Your task to perform on an android device: toggle location history Image 0: 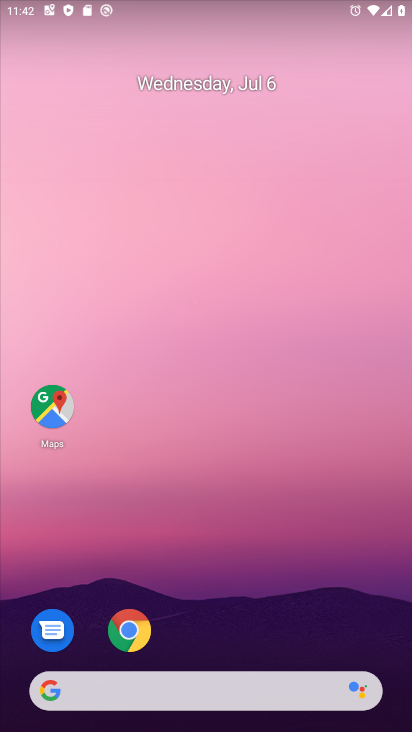
Step 0: drag from (251, 631) to (249, 83)
Your task to perform on an android device: toggle location history Image 1: 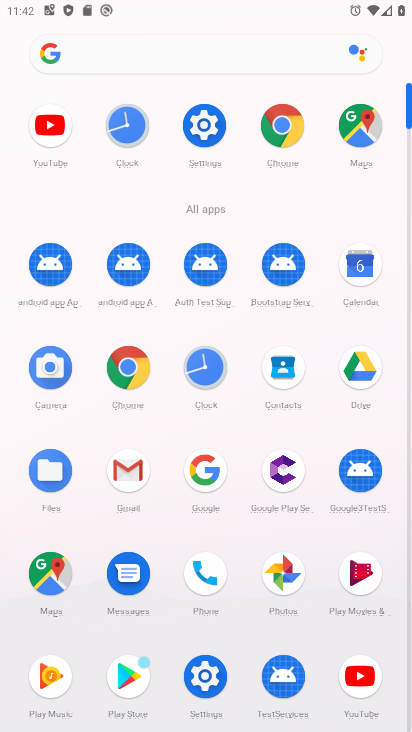
Step 1: click (51, 584)
Your task to perform on an android device: toggle location history Image 2: 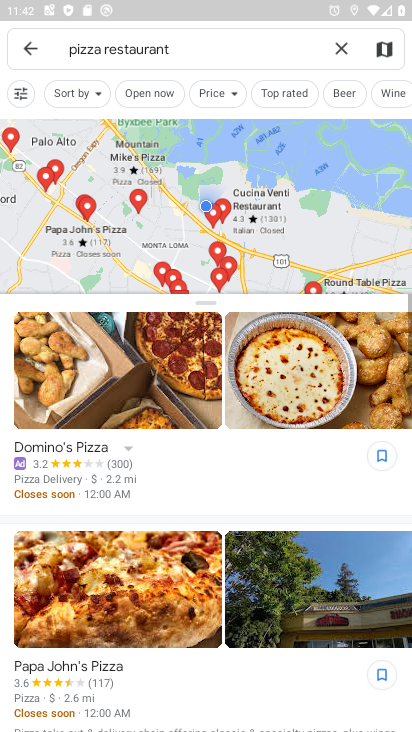
Step 2: click (30, 49)
Your task to perform on an android device: toggle location history Image 3: 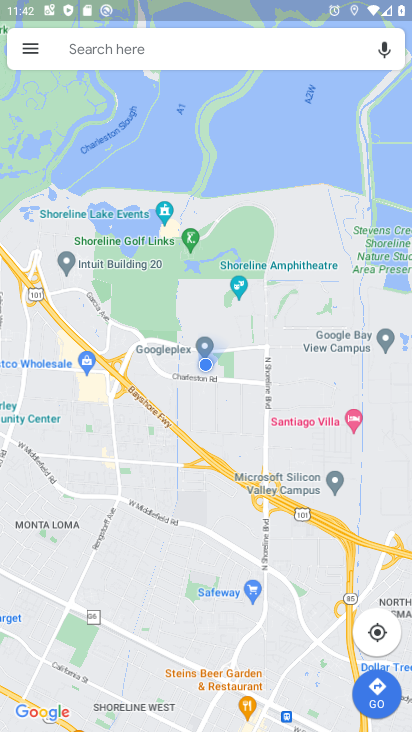
Step 3: click (30, 49)
Your task to perform on an android device: toggle location history Image 4: 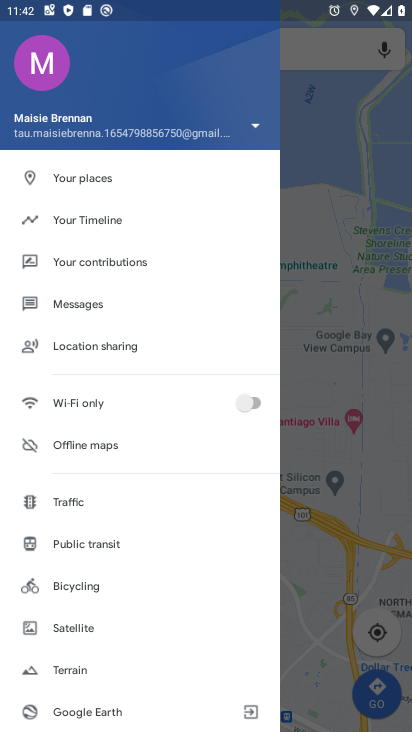
Step 4: click (103, 225)
Your task to perform on an android device: toggle location history Image 5: 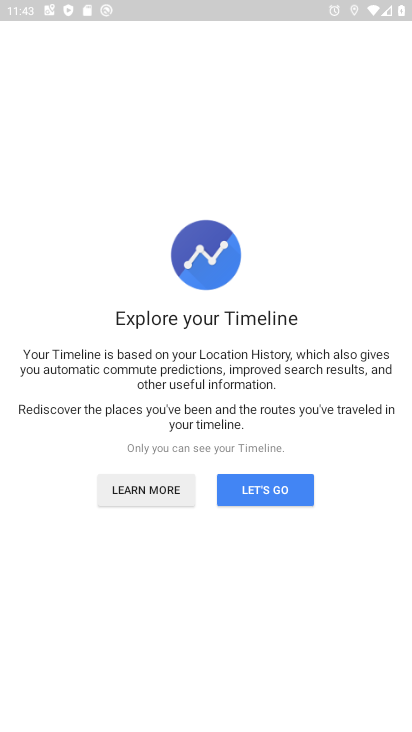
Step 5: click (235, 498)
Your task to perform on an android device: toggle location history Image 6: 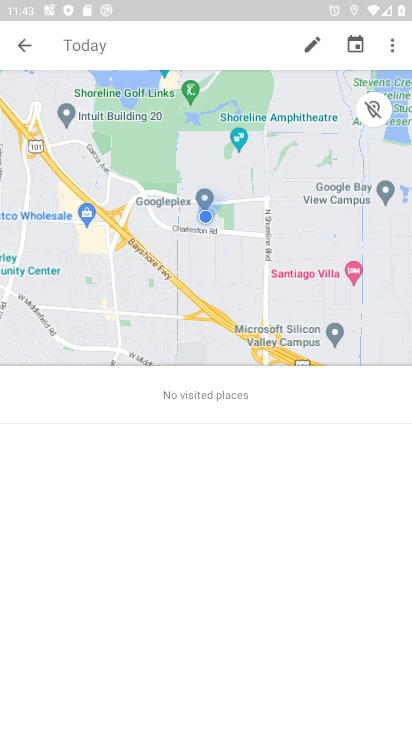
Step 6: click (387, 57)
Your task to perform on an android device: toggle location history Image 7: 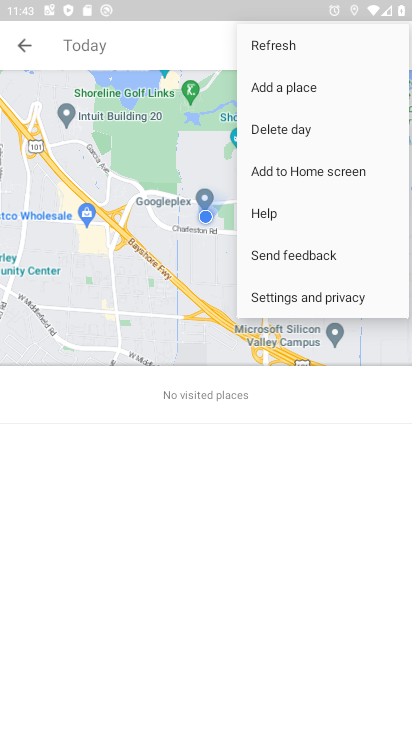
Step 7: click (359, 292)
Your task to perform on an android device: toggle location history Image 8: 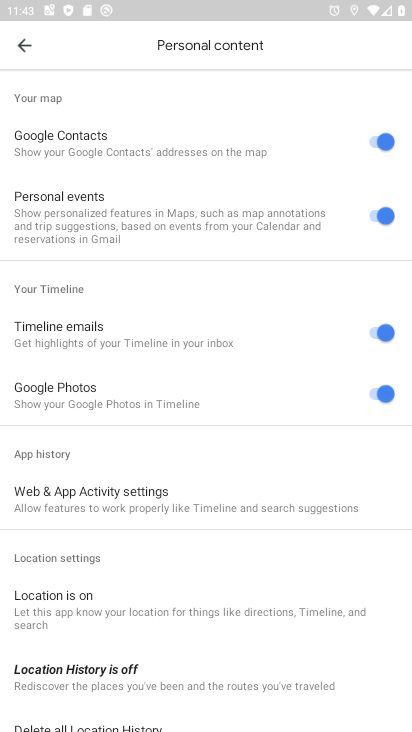
Step 8: click (188, 674)
Your task to perform on an android device: toggle location history Image 9: 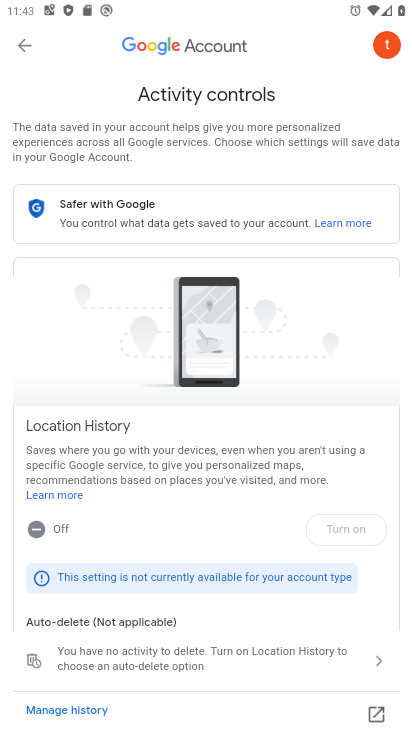
Step 9: click (331, 534)
Your task to perform on an android device: toggle location history Image 10: 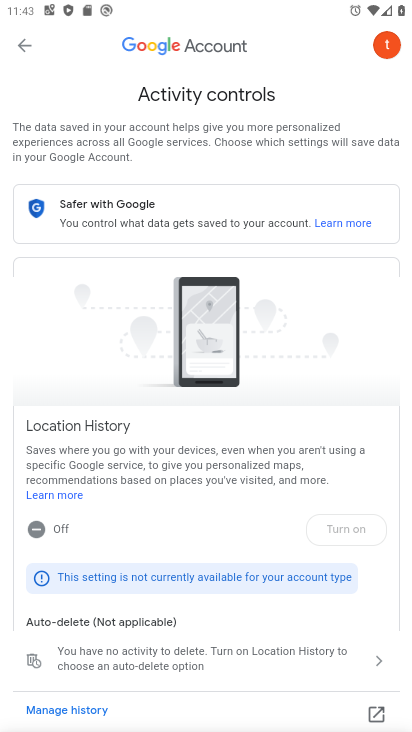
Step 10: task complete